Your task to perform on an android device: Open Yahoo.com Image 0: 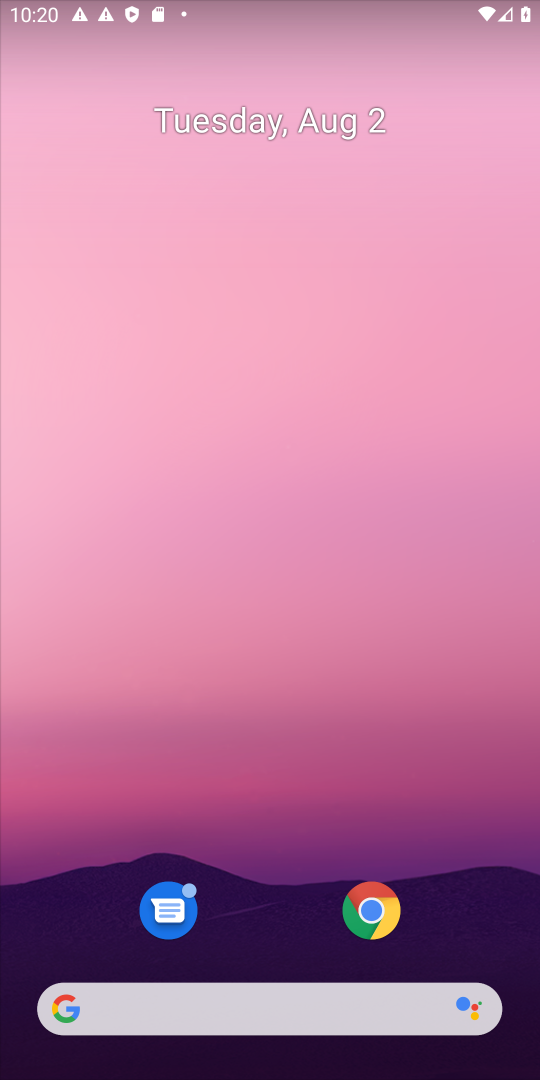
Step 0: click (356, 904)
Your task to perform on an android device: Open Yahoo.com Image 1: 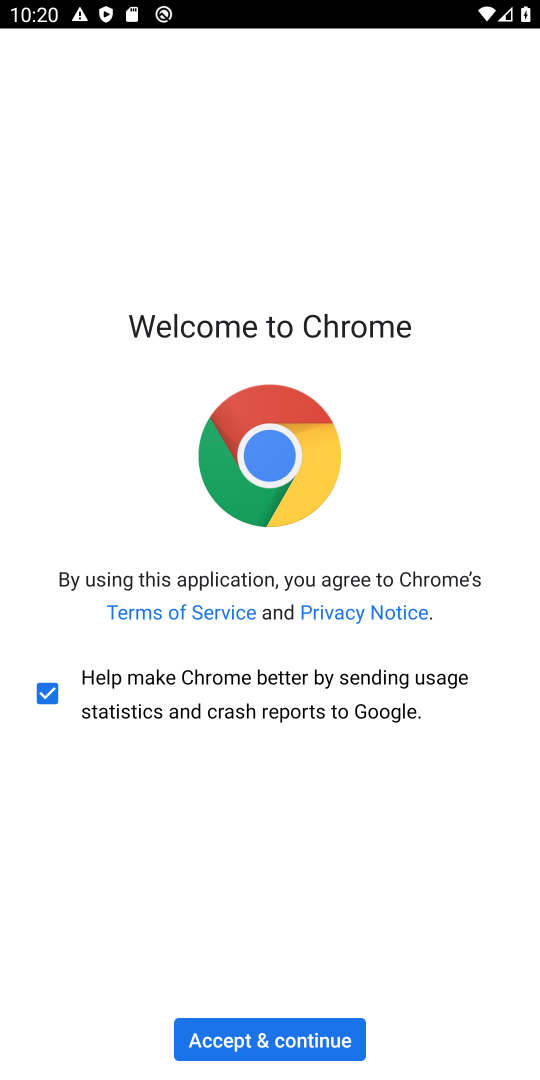
Step 1: click (238, 1034)
Your task to perform on an android device: Open Yahoo.com Image 2: 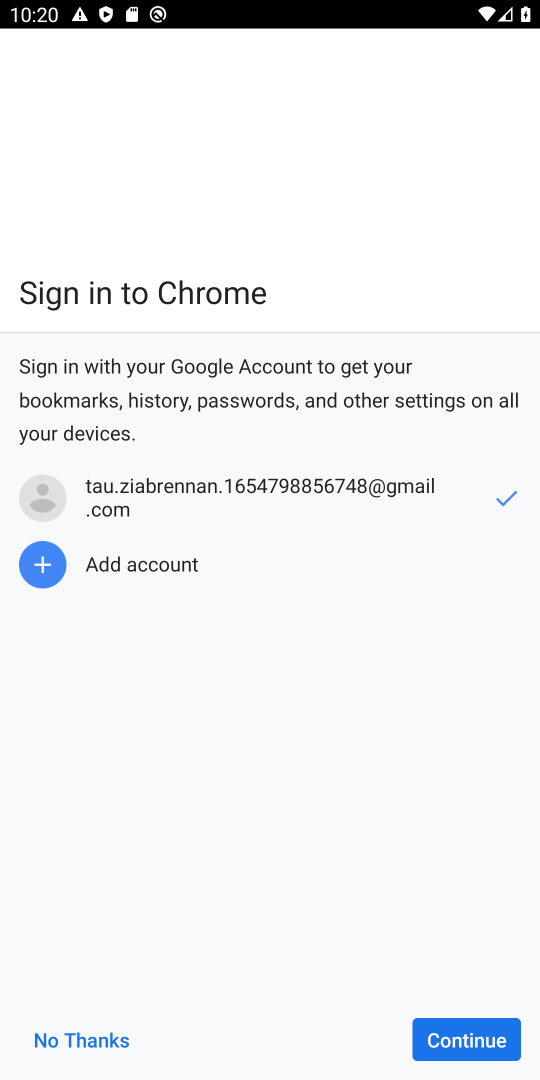
Step 2: click (507, 1030)
Your task to perform on an android device: Open Yahoo.com Image 3: 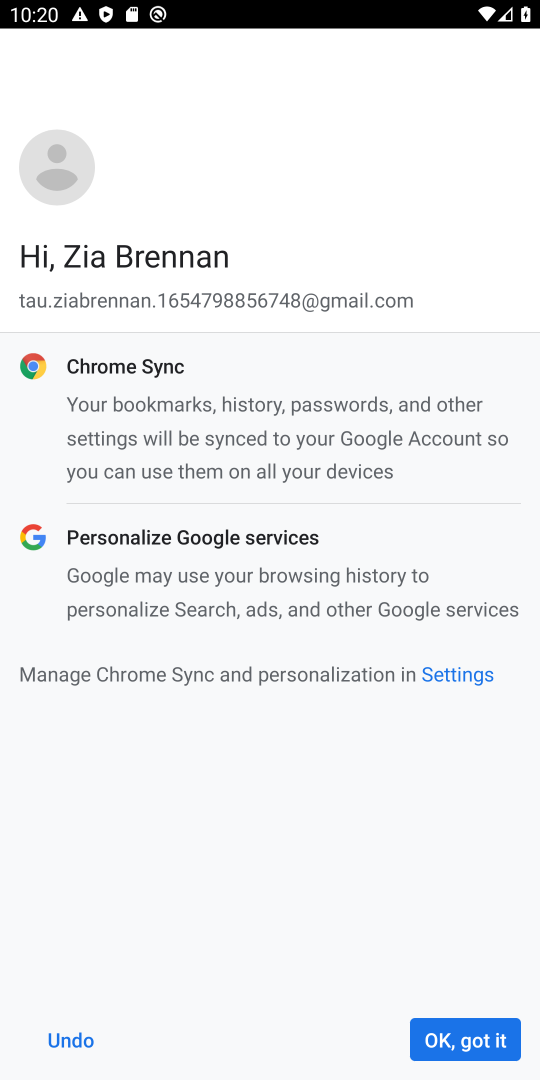
Step 3: click (506, 1027)
Your task to perform on an android device: Open Yahoo.com Image 4: 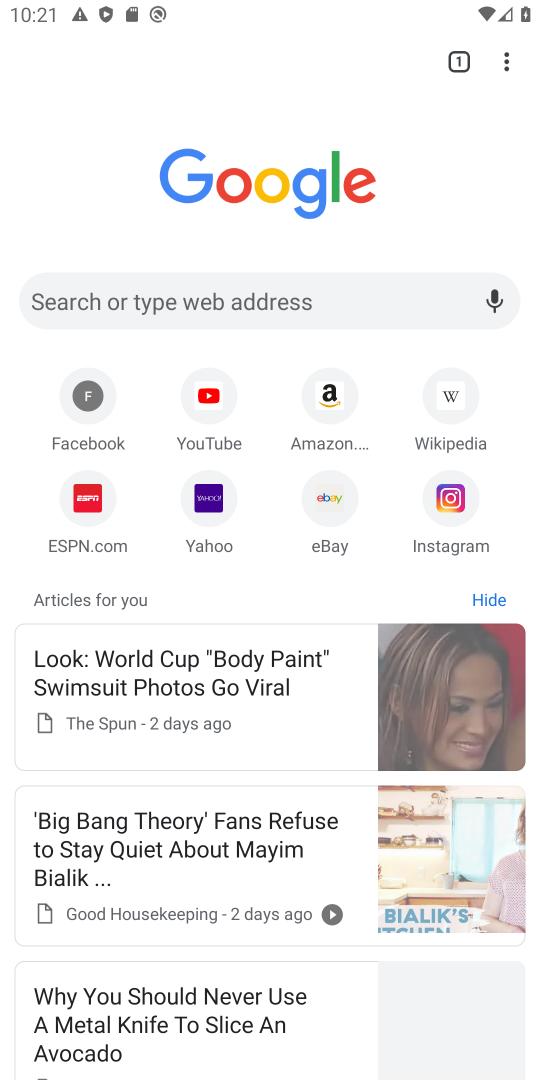
Step 4: click (195, 507)
Your task to perform on an android device: Open Yahoo.com Image 5: 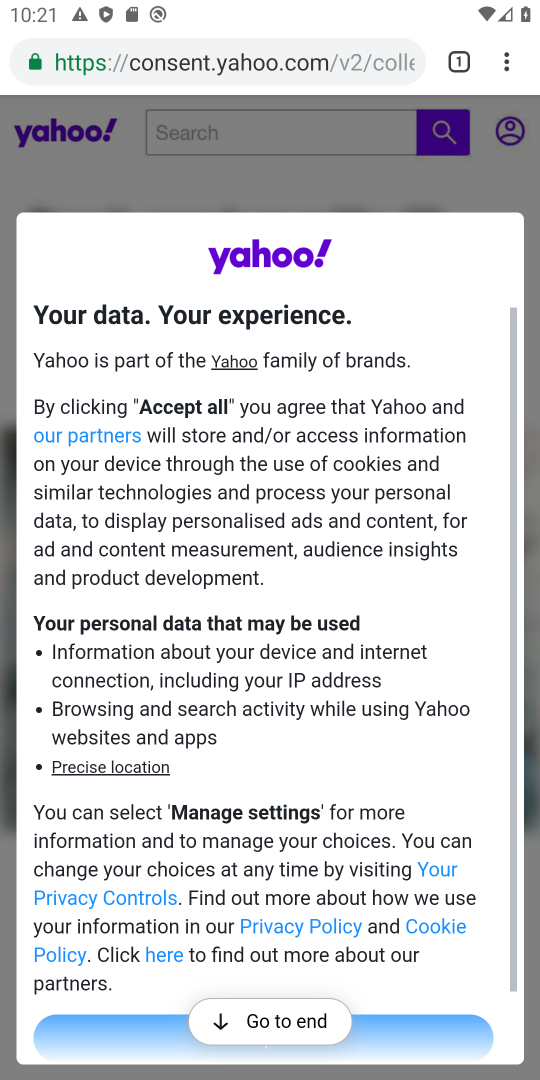
Step 5: task complete